Your task to perform on an android device: turn off airplane mode Image 0: 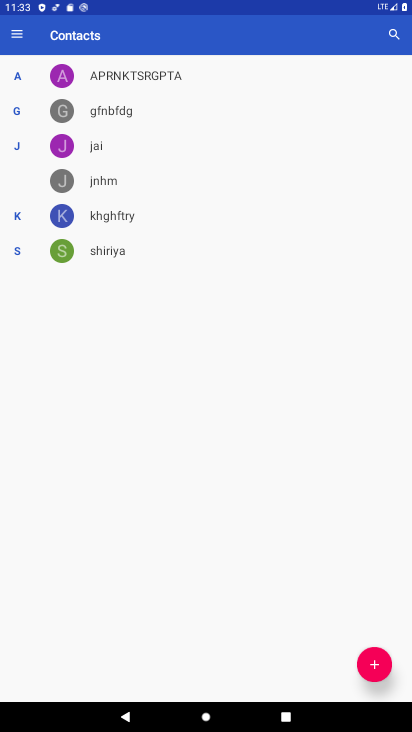
Step 0: press home button
Your task to perform on an android device: turn off airplane mode Image 1: 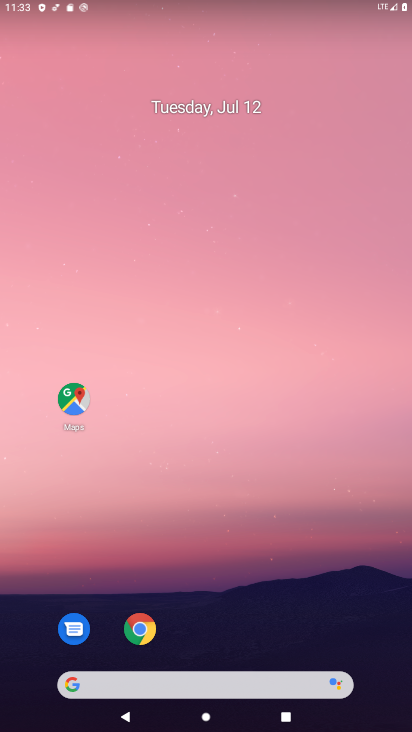
Step 1: drag from (211, 667) to (294, 102)
Your task to perform on an android device: turn off airplane mode Image 2: 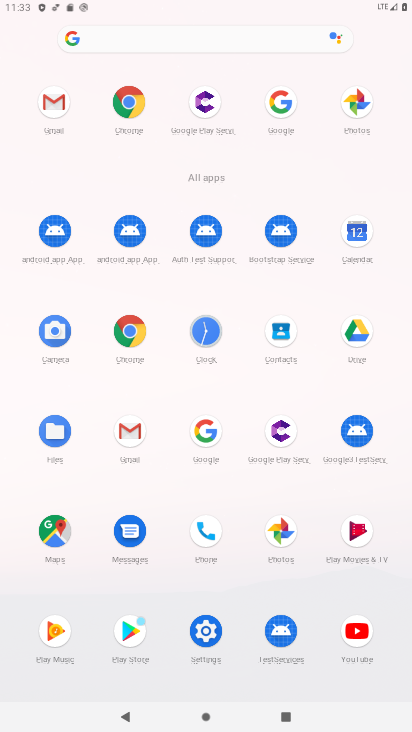
Step 2: click (205, 625)
Your task to perform on an android device: turn off airplane mode Image 3: 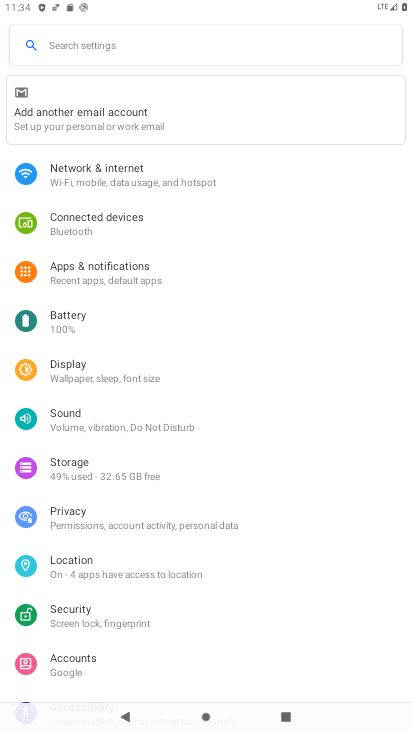
Step 3: click (157, 179)
Your task to perform on an android device: turn off airplane mode Image 4: 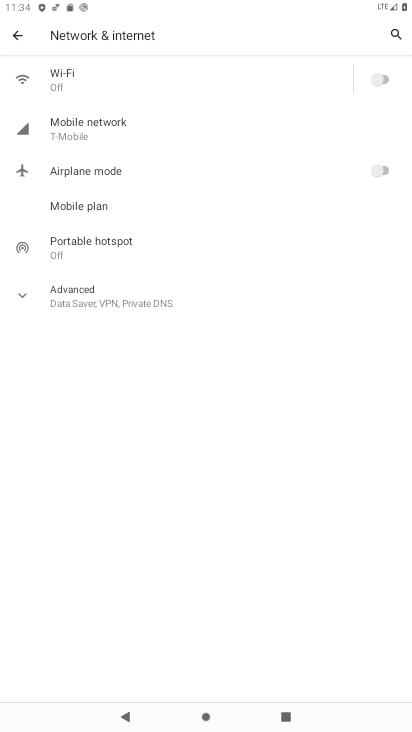
Step 4: task complete